Your task to perform on an android device: Open Google Maps Image 0: 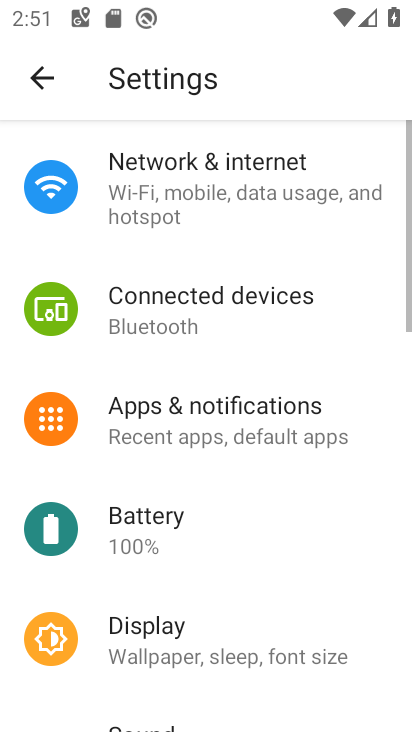
Step 0: press home button
Your task to perform on an android device: Open Google Maps Image 1: 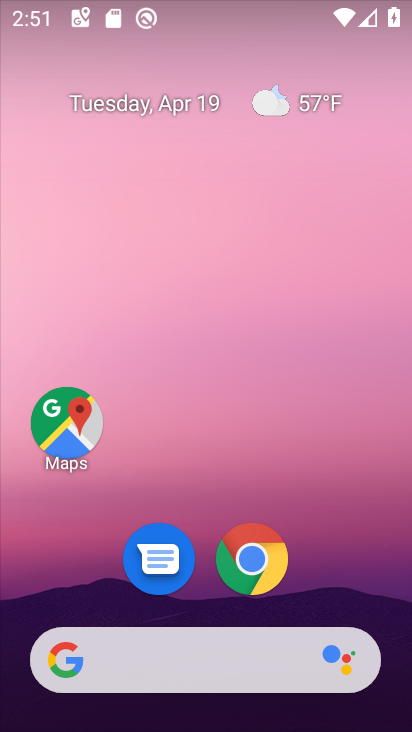
Step 1: drag from (207, 607) to (202, 35)
Your task to perform on an android device: Open Google Maps Image 2: 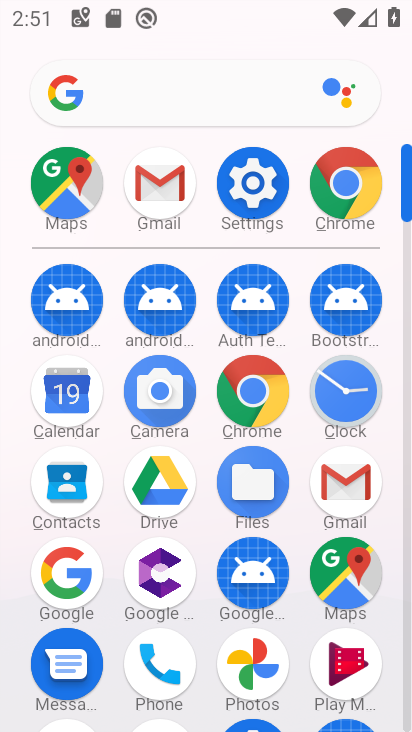
Step 2: click (65, 175)
Your task to perform on an android device: Open Google Maps Image 3: 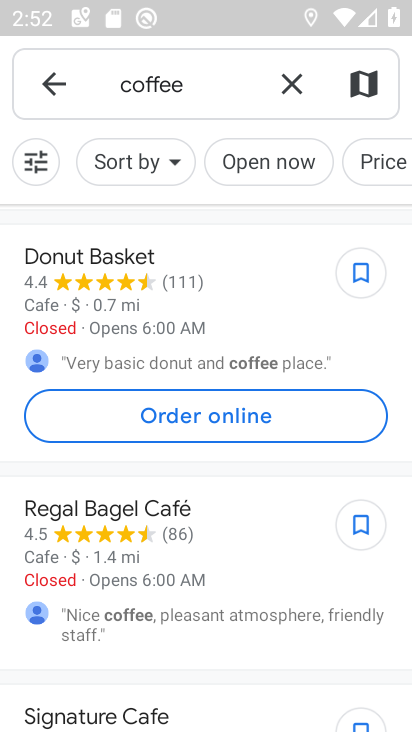
Step 3: click (57, 85)
Your task to perform on an android device: Open Google Maps Image 4: 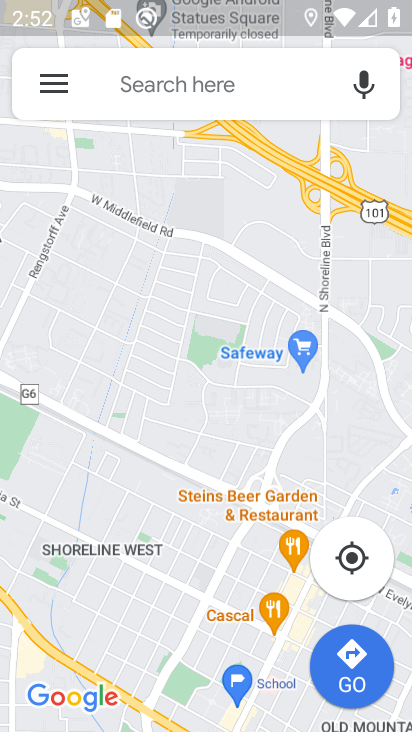
Step 4: click (53, 81)
Your task to perform on an android device: Open Google Maps Image 5: 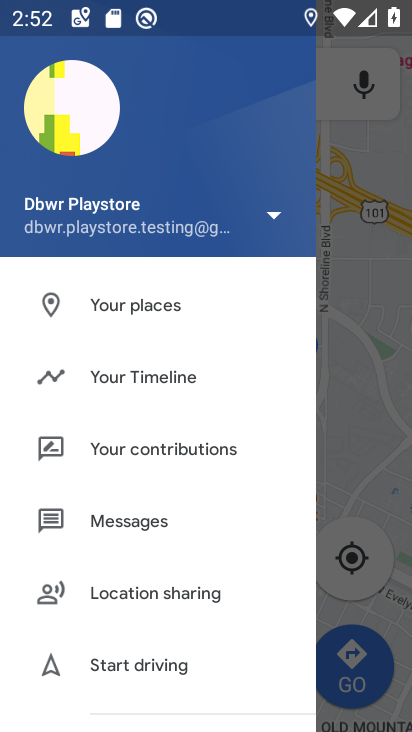
Step 5: task complete